Your task to perform on an android device: turn on showing notifications on the lock screen Image 0: 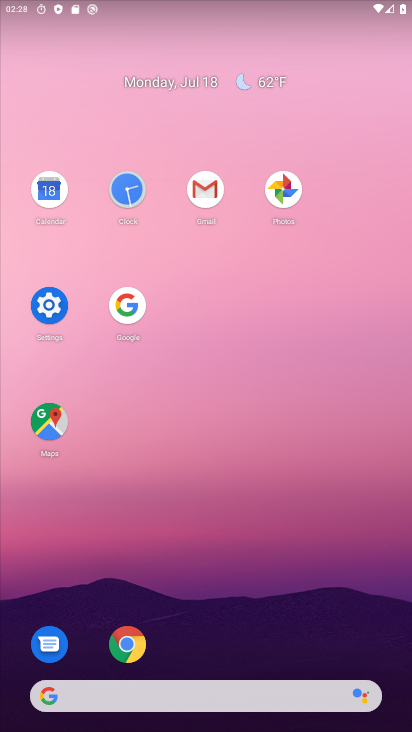
Step 0: click (62, 304)
Your task to perform on an android device: turn on showing notifications on the lock screen Image 1: 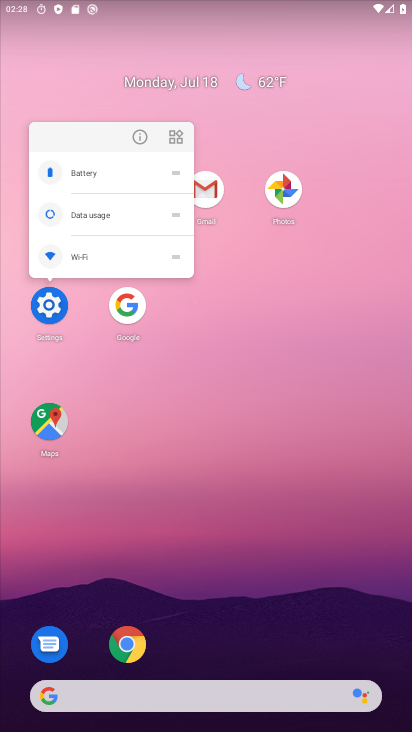
Step 1: click (42, 318)
Your task to perform on an android device: turn on showing notifications on the lock screen Image 2: 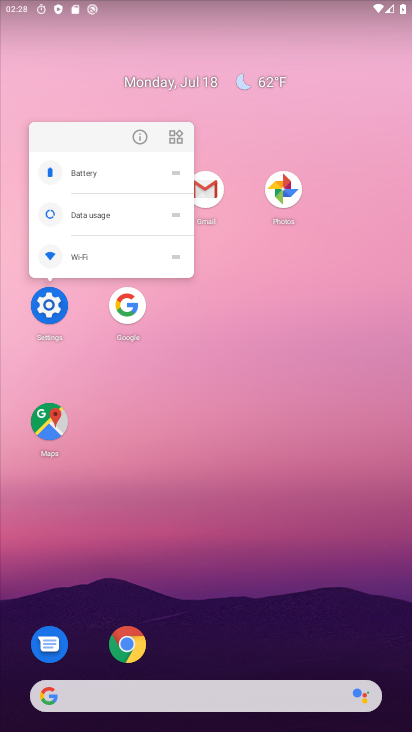
Step 2: click (42, 318)
Your task to perform on an android device: turn on showing notifications on the lock screen Image 3: 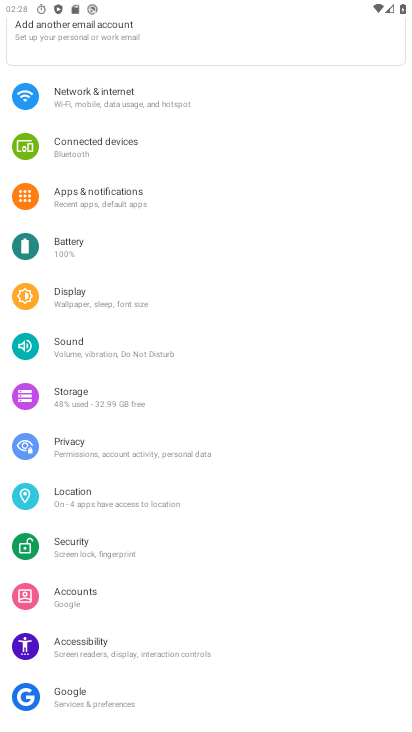
Step 3: click (110, 200)
Your task to perform on an android device: turn on showing notifications on the lock screen Image 4: 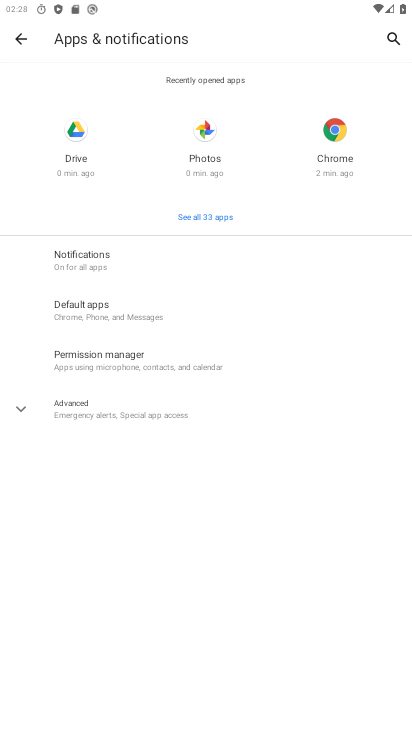
Step 4: click (126, 253)
Your task to perform on an android device: turn on showing notifications on the lock screen Image 5: 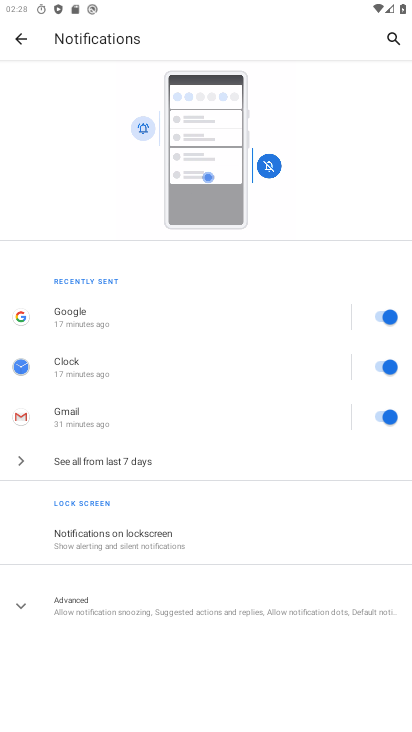
Step 5: click (90, 597)
Your task to perform on an android device: turn on showing notifications on the lock screen Image 6: 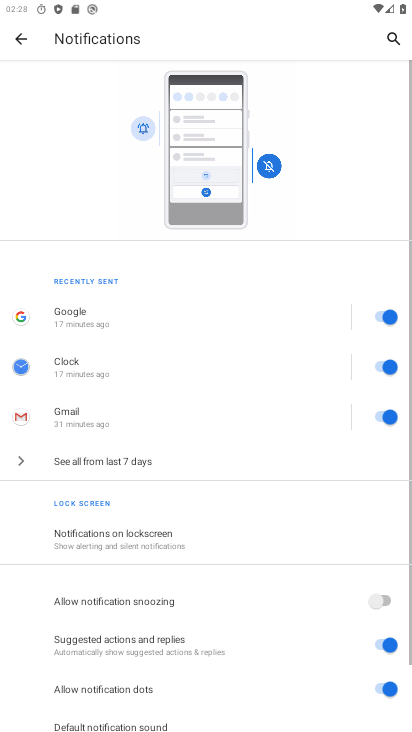
Step 6: click (180, 526)
Your task to perform on an android device: turn on showing notifications on the lock screen Image 7: 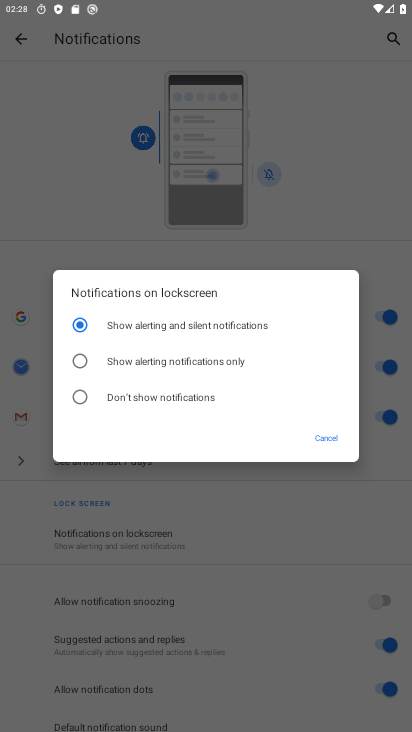
Step 7: task complete